Your task to perform on an android device: turn on notifications settings in the gmail app Image 0: 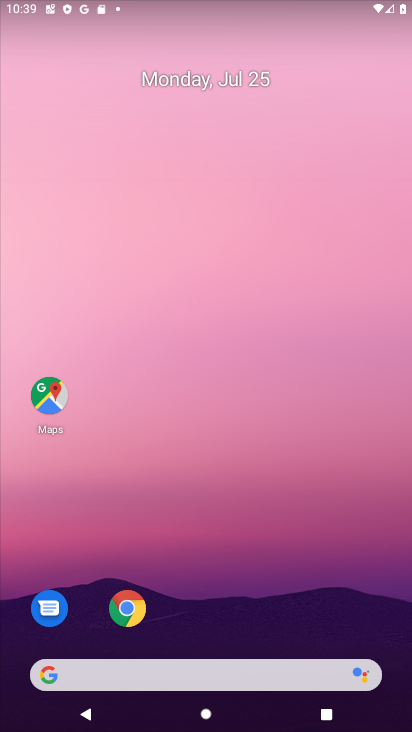
Step 0: drag from (186, 642) to (190, 261)
Your task to perform on an android device: turn on notifications settings in the gmail app Image 1: 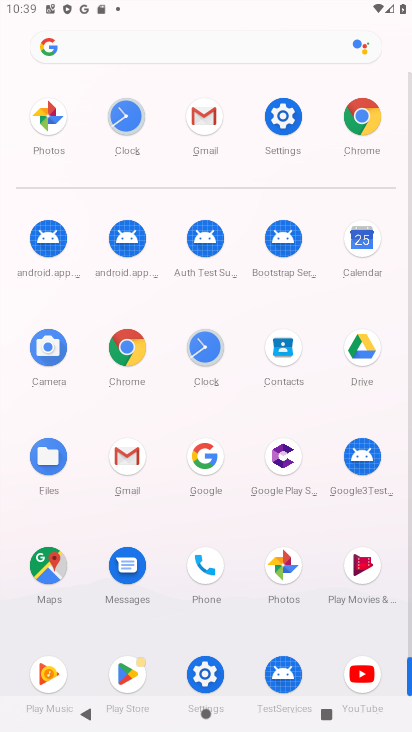
Step 1: click (145, 469)
Your task to perform on an android device: turn on notifications settings in the gmail app Image 2: 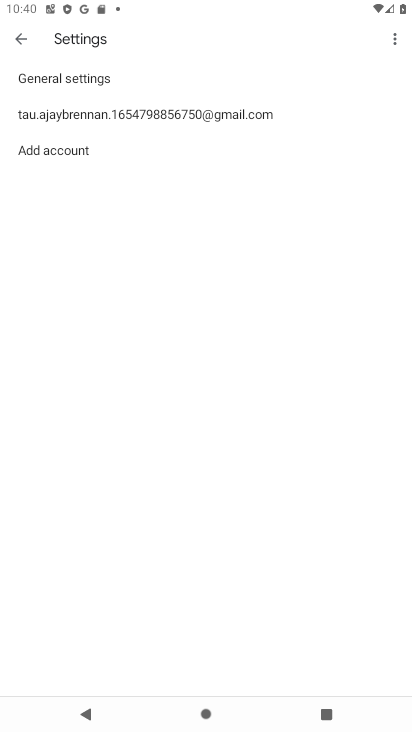
Step 2: click (122, 81)
Your task to perform on an android device: turn on notifications settings in the gmail app Image 3: 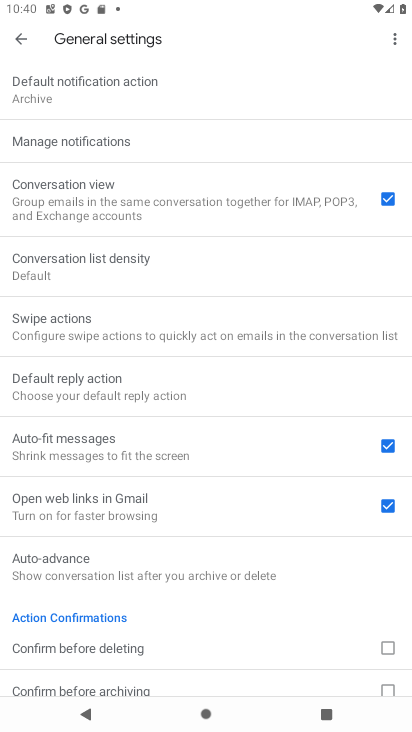
Step 3: click (148, 148)
Your task to perform on an android device: turn on notifications settings in the gmail app Image 4: 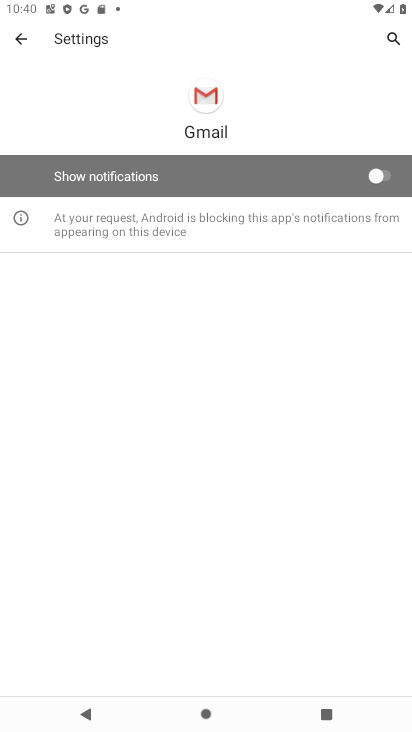
Step 4: click (234, 170)
Your task to perform on an android device: turn on notifications settings in the gmail app Image 5: 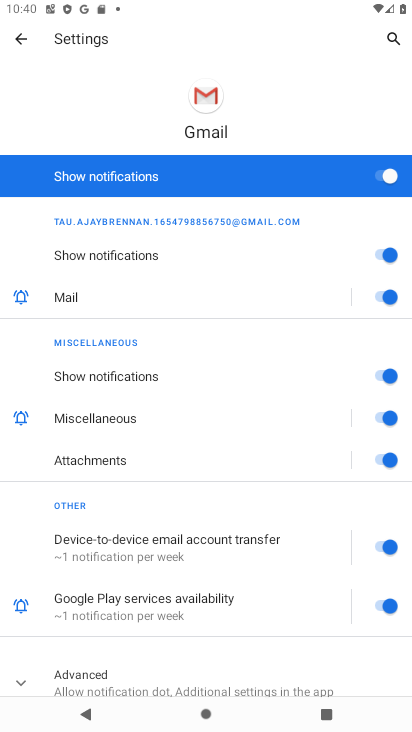
Step 5: task complete